Your task to perform on an android device: open a new tab in the chrome app Image 0: 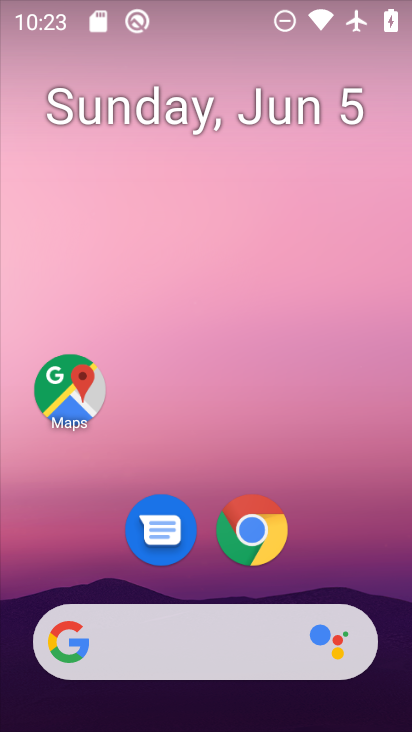
Step 0: click (253, 532)
Your task to perform on an android device: open a new tab in the chrome app Image 1: 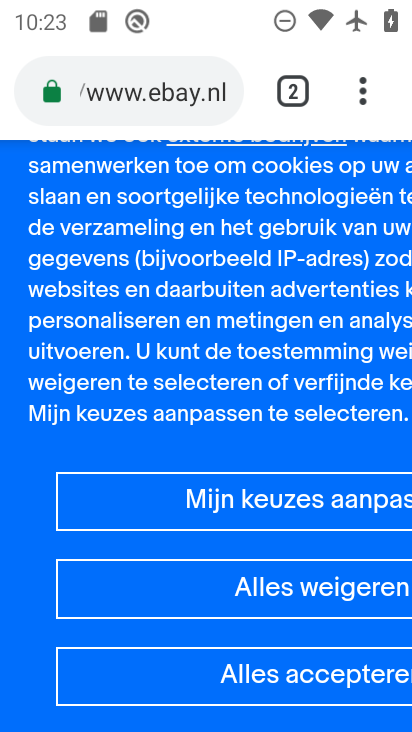
Step 1: click (361, 101)
Your task to perform on an android device: open a new tab in the chrome app Image 2: 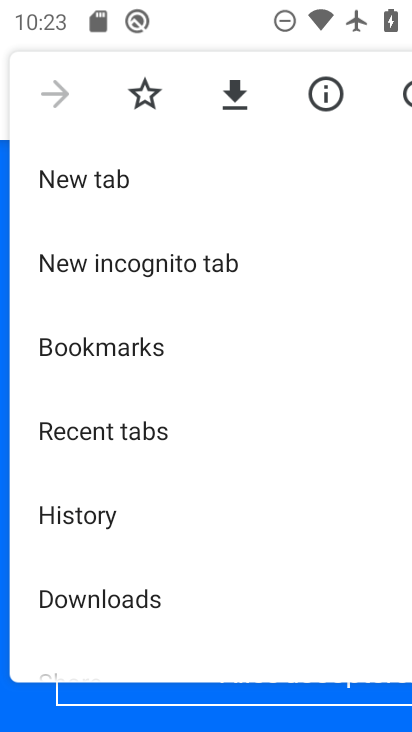
Step 2: click (90, 172)
Your task to perform on an android device: open a new tab in the chrome app Image 3: 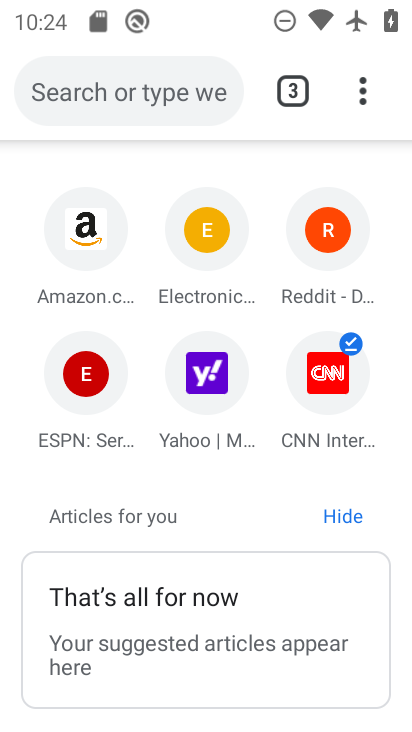
Step 3: task complete